Your task to perform on an android device: create a new album in the google photos Image 0: 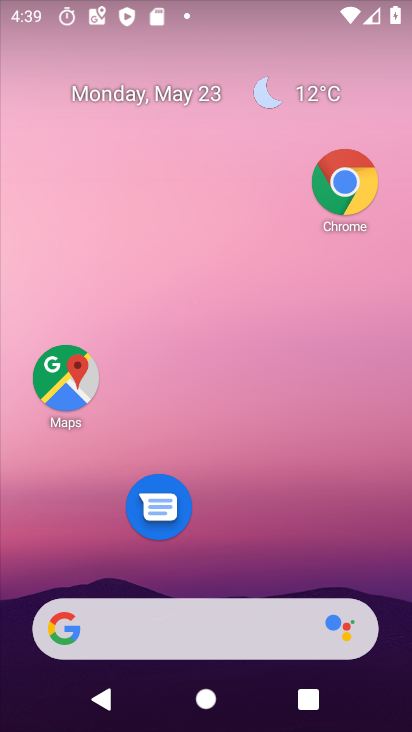
Step 0: drag from (254, 552) to (174, 32)
Your task to perform on an android device: create a new album in the google photos Image 1: 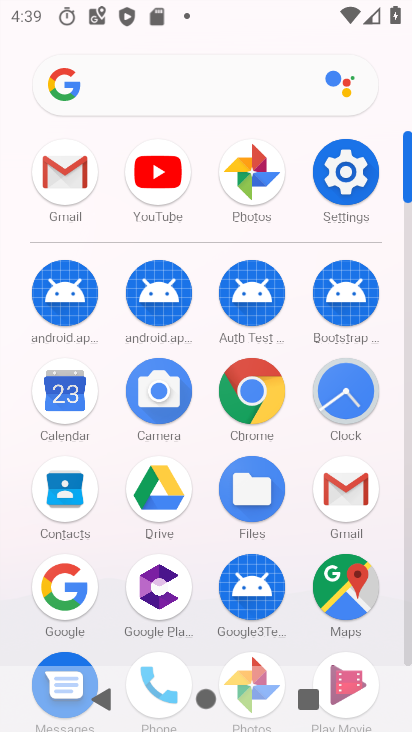
Step 1: click (253, 198)
Your task to perform on an android device: create a new album in the google photos Image 2: 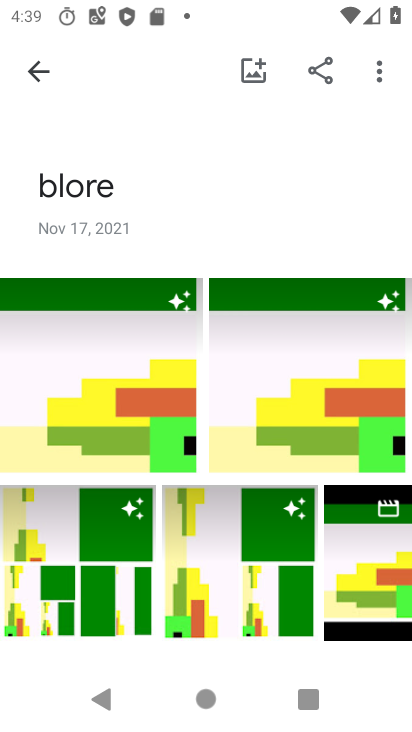
Step 2: click (41, 71)
Your task to perform on an android device: create a new album in the google photos Image 3: 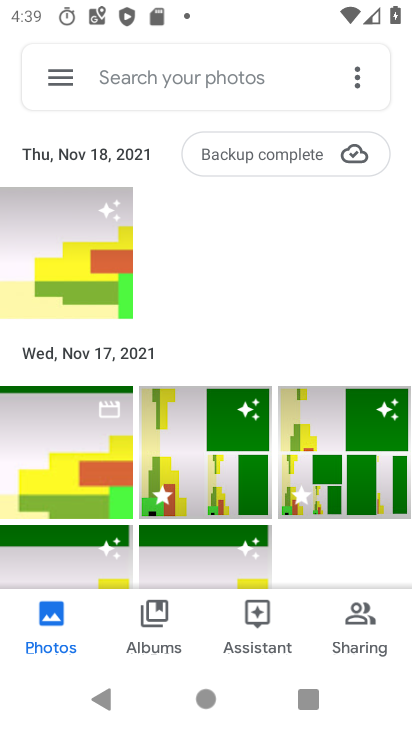
Step 3: click (102, 367)
Your task to perform on an android device: create a new album in the google photos Image 4: 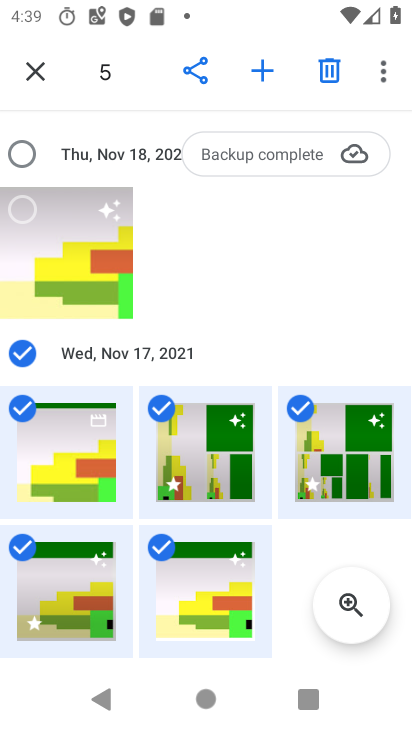
Step 4: click (270, 75)
Your task to perform on an android device: create a new album in the google photos Image 5: 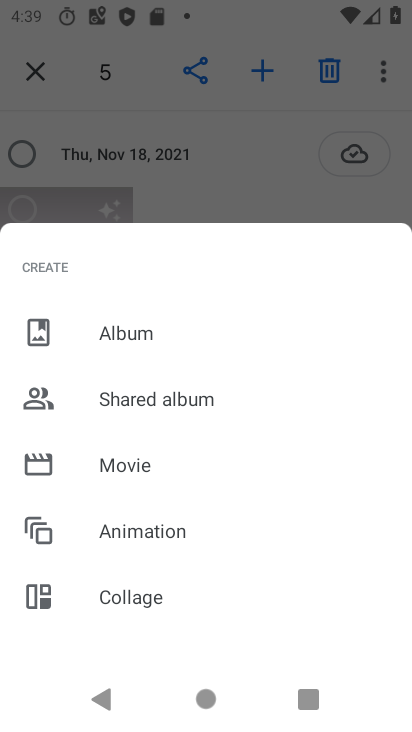
Step 5: type "jhgvf"
Your task to perform on an android device: create a new album in the google photos Image 6: 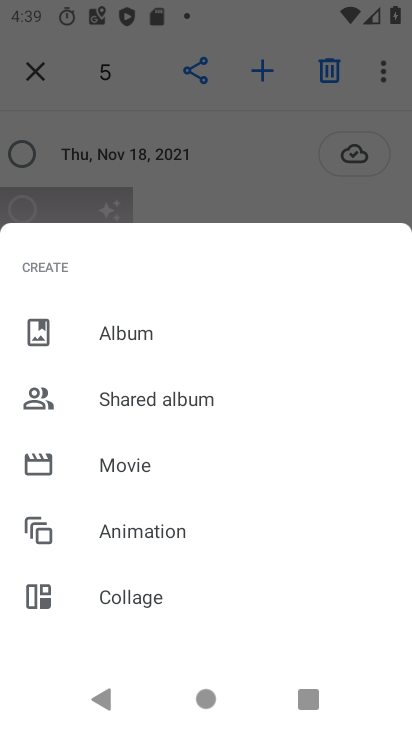
Step 6: click (225, 318)
Your task to perform on an android device: create a new album in the google photos Image 7: 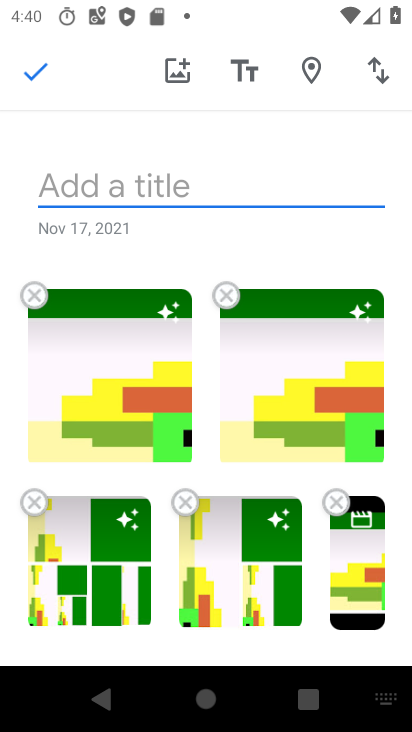
Step 7: type "klikjhgfv"
Your task to perform on an android device: create a new album in the google photos Image 8: 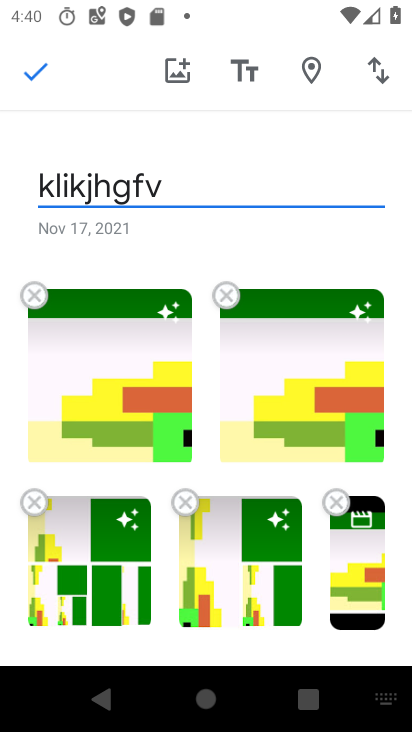
Step 8: click (8, 78)
Your task to perform on an android device: create a new album in the google photos Image 9: 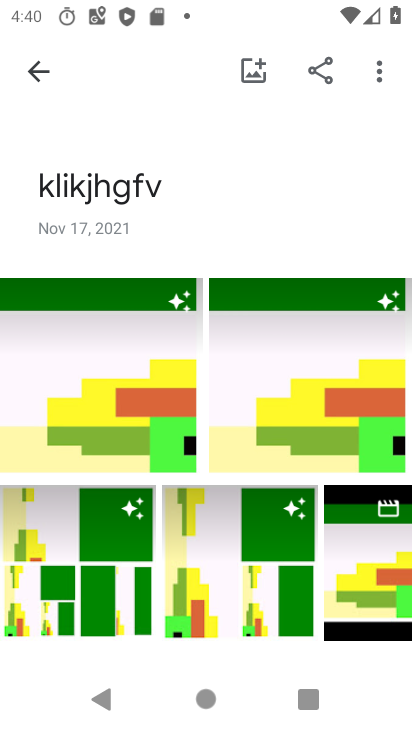
Step 9: task complete